Your task to perform on an android device: turn off improve location accuracy Image 0: 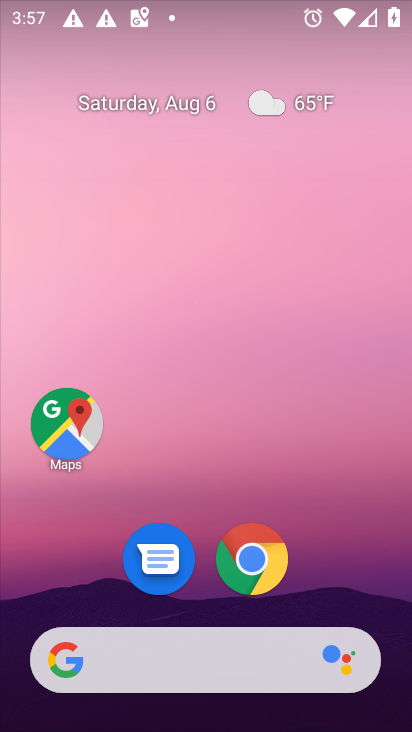
Step 0: drag from (250, 459) to (218, 11)
Your task to perform on an android device: turn off improve location accuracy Image 1: 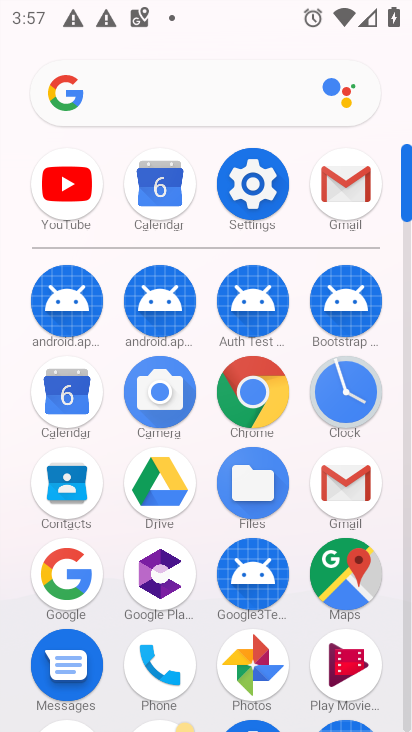
Step 1: click (254, 174)
Your task to perform on an android device: turn off improve location accuracy Image 2: 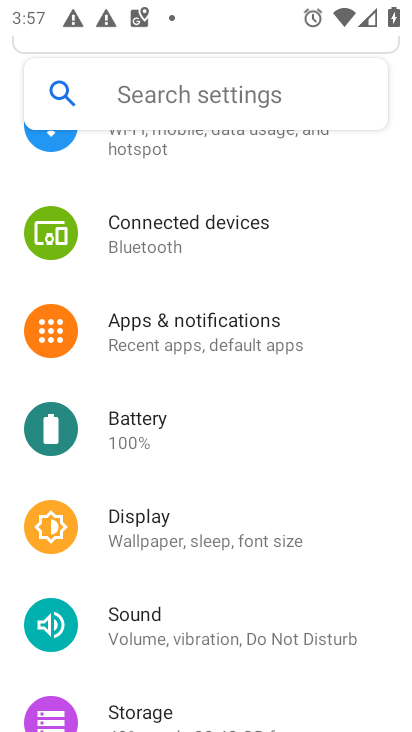
Step 2: drag from (253, 451) to (277, 15)
Your task to perform on an android device: turn off improve location accuracy Image 3: 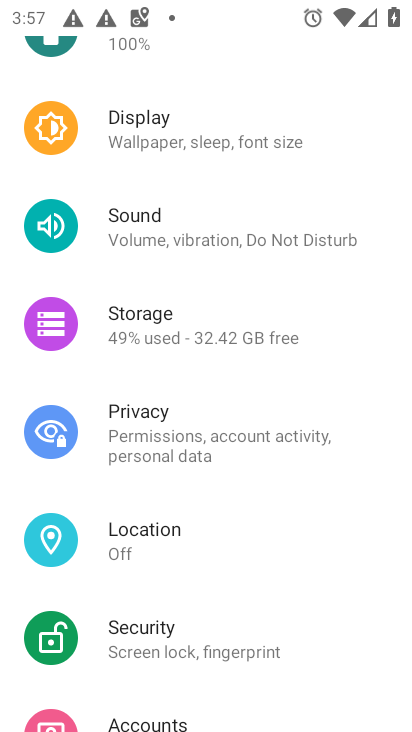
Step 3: click (144, 523)
Your task to perform on an android device: turn off improve location accuracy Image 4: 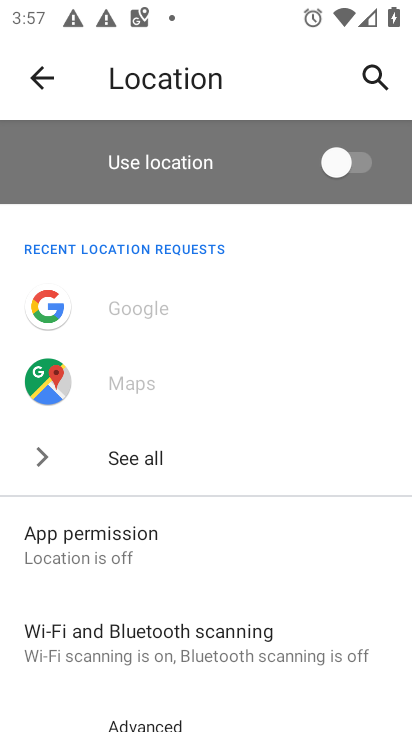
Step 4: drag from (259, 548) to (244, 194)
Your task to perform on an android device: turn off improve location accuracy Image 5: 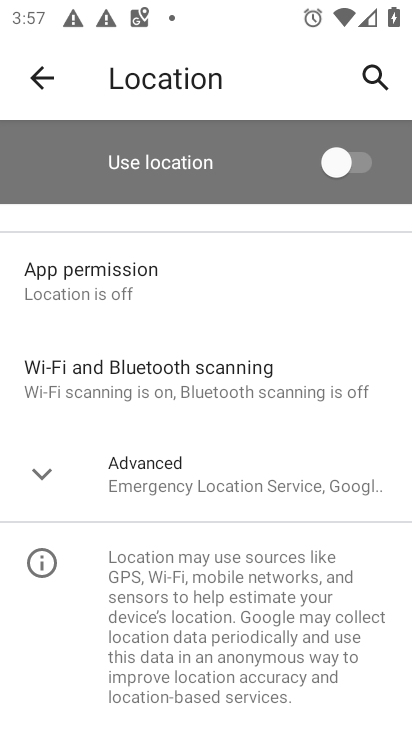
Step 5: click (43, 467)
Your task to perform on an android device: turn off improve location accuracy Image 6: 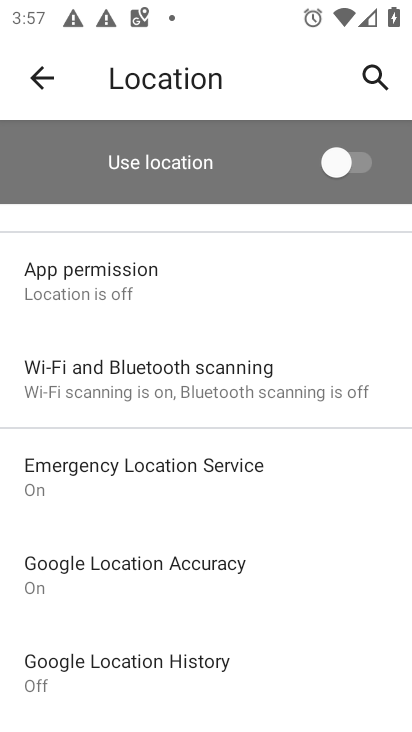
Step 6: click (91, 567)
Your task to perform on an android device: turn off improve location accuracy Image 7: 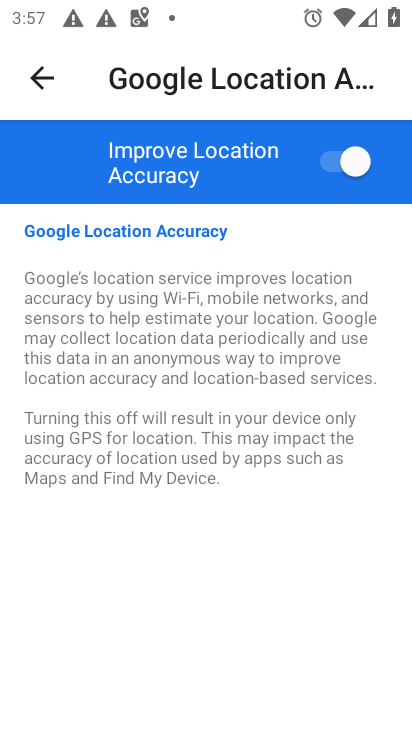
Step 7: click (332, 153)
Your task to perform on an android device: turn off improve location accuracy Image 8: 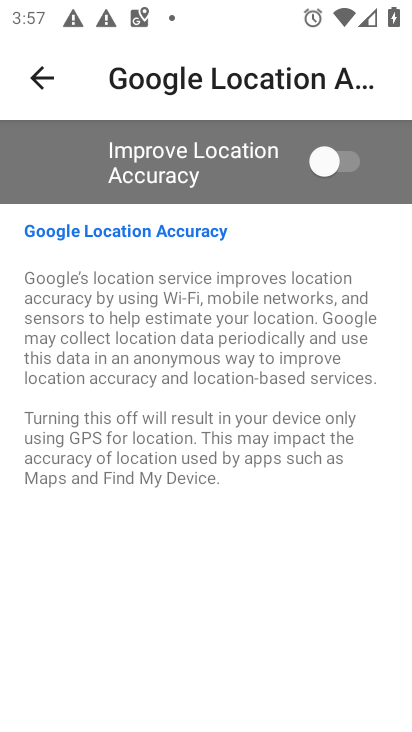
Step 8: task complete